Your task to perform on an android device: check battery use Image 0: 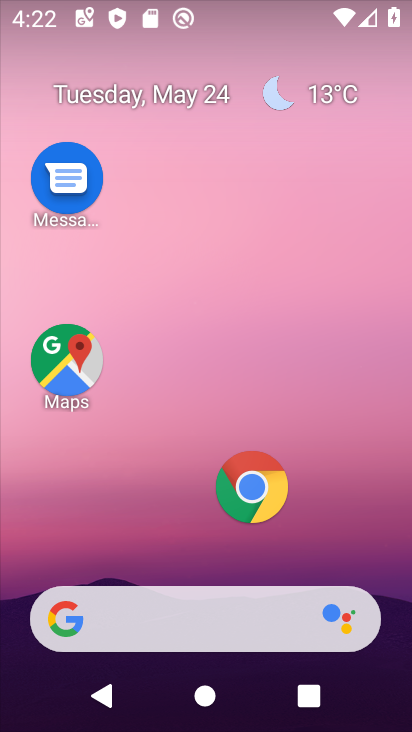
Step 0: drag from (156, 68) to (156, 1)
Your task to perform on an android device: check battery use Image 1: 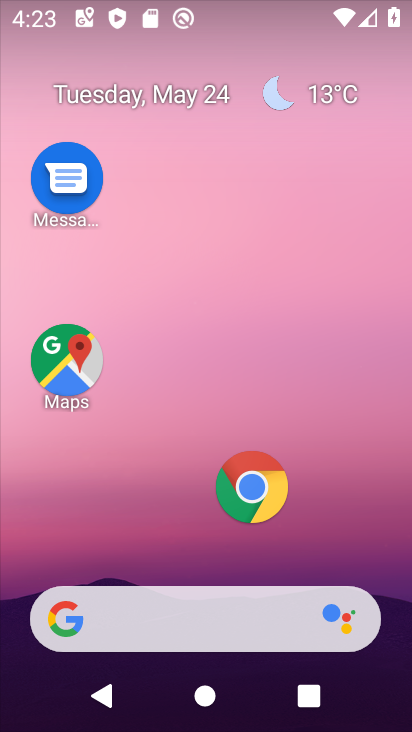
Step 1: click (204, 168)
Your task to perform on an android device: check battery use Image 2: 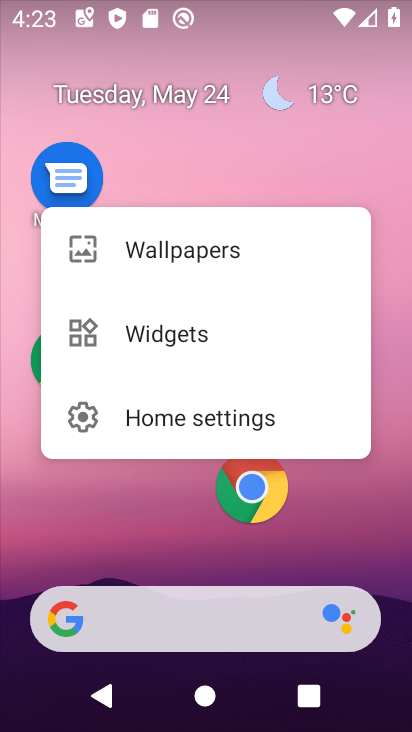
Step 2: click (180, 547)
Your task to perform on an android device: check battery use Image 3: 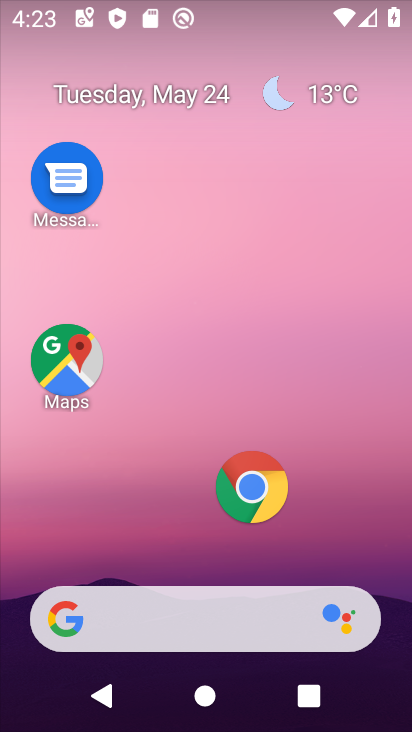
Step 3: drag from (181, 561) to (248, 19)
Your task to perform on an android device: check battery use Image 4: 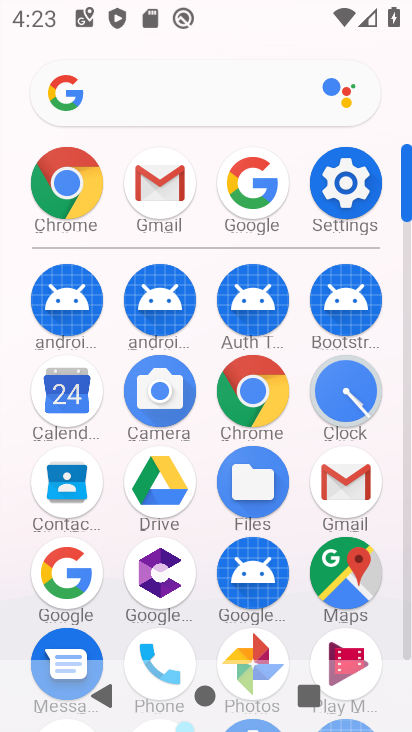
Step 4: click (345, 190)
Your task to perform on an android device: check battery use Image 5: 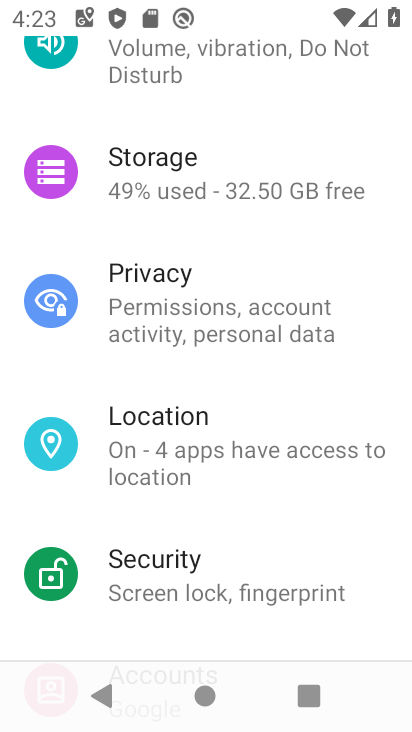
Step 5: drag from (175, 150) to (176, 702)
Your task to perform on an android device: check battery use Image 6: 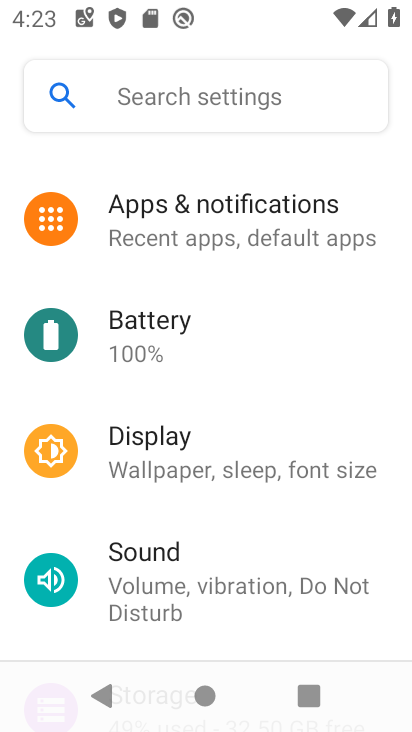
Step 6: click (156, 337)
Your task to perform on an android device: check battery use Image 7: 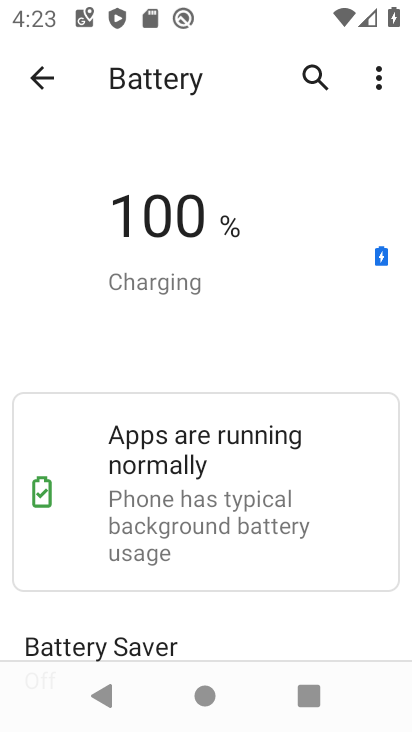
Step 7: task complete